Your task to perform on an android device: Is it going to rain this weekend? Image 0: 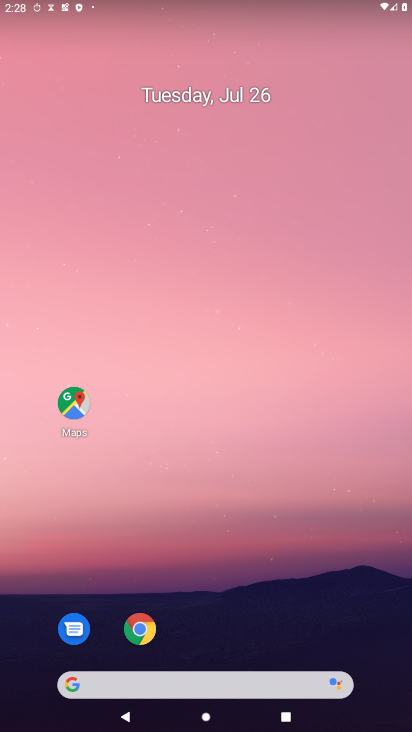
Step 0: drag from (200, 664) to (188, 0)
Your task to perform on an android device: Is it going to rain this weekend? Image 1: 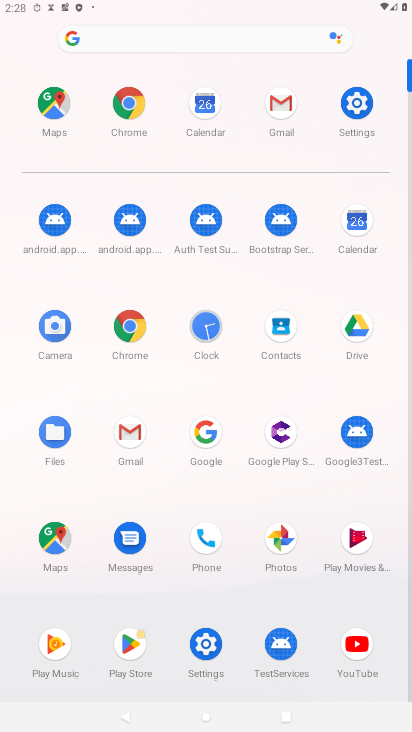
Step 1: click (360, 234)
Your task to perform on an android device: Is it going to rain this weekend? Image 2: 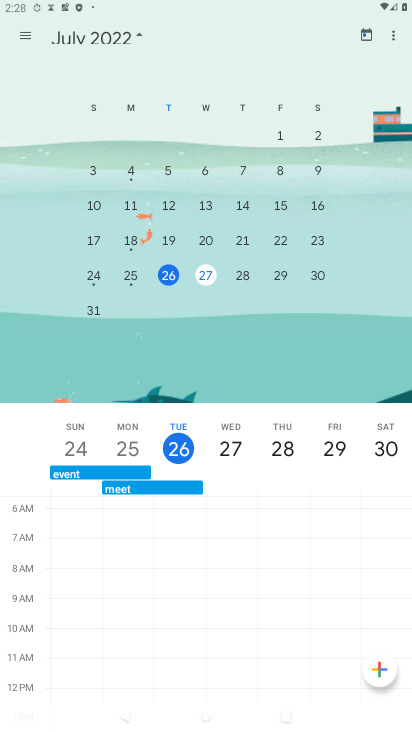
Step 2: press back button
Your task to perform on an android device: Is it going to rain this weekend? Image 3: 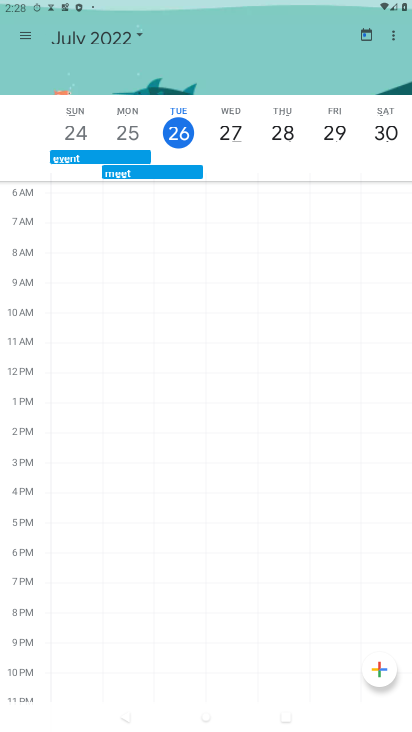
Step 3: press back button
Your task to perform on an android device: Is it going to rain this weekend? Image 4: 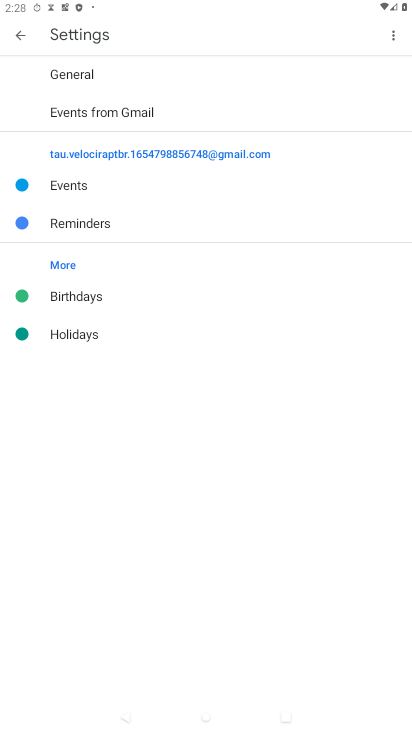
Step 4: press back button
Your task to perform on an android device: Is it going to rain this weekend? Image 5: 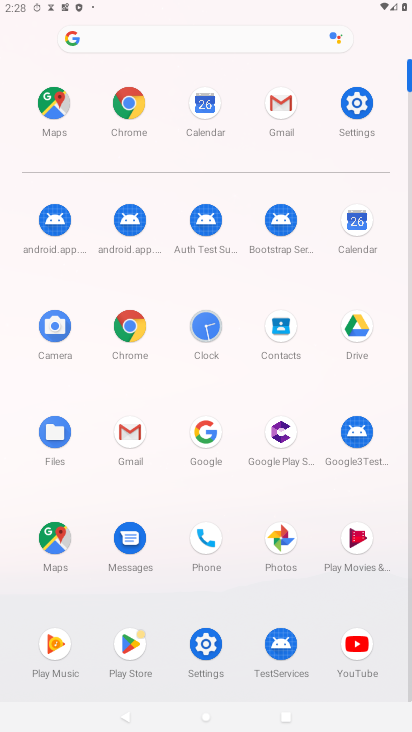
Step 5: click (348, 221)
Your task to perform on an android device: Is it going to rain this weekend? Image 6: 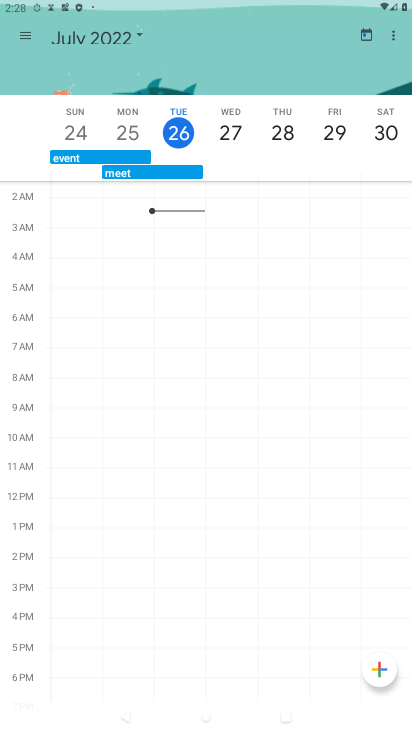
Step 6: click (137, 29)
Your task to perform on an android device: Is it going to rain this weekend? Image 7: 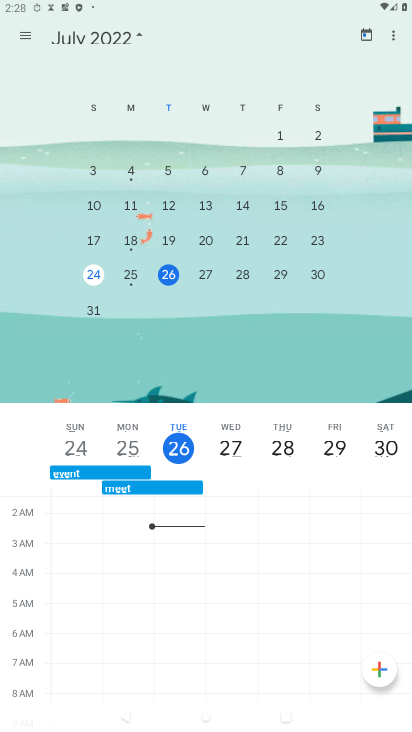
Step 7: click (313, 273)
Your task to perform on an android device: Is it going to rain this weekend? Image 8: 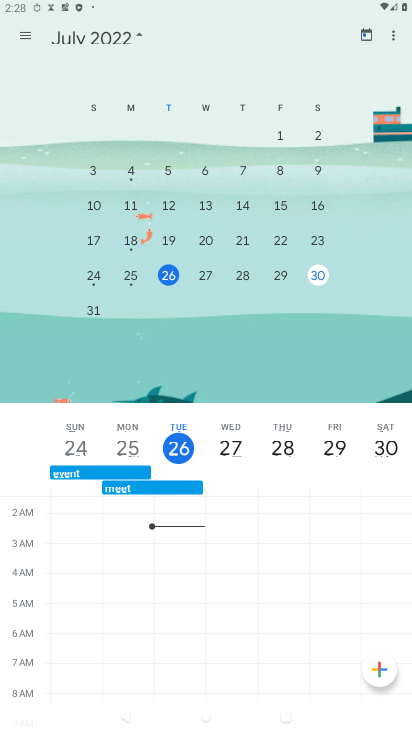
Step 8: task complete